Your task to perform on an android device: turn on location history Image 0: 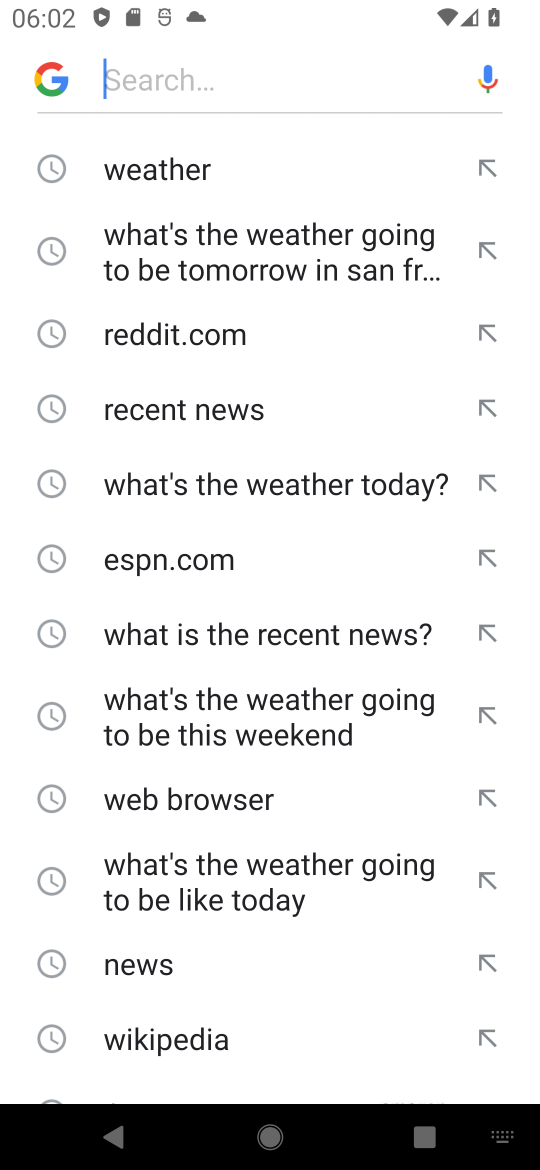
Step 0: press home button
Your task to perform on an android device: turn on location history Image 1: 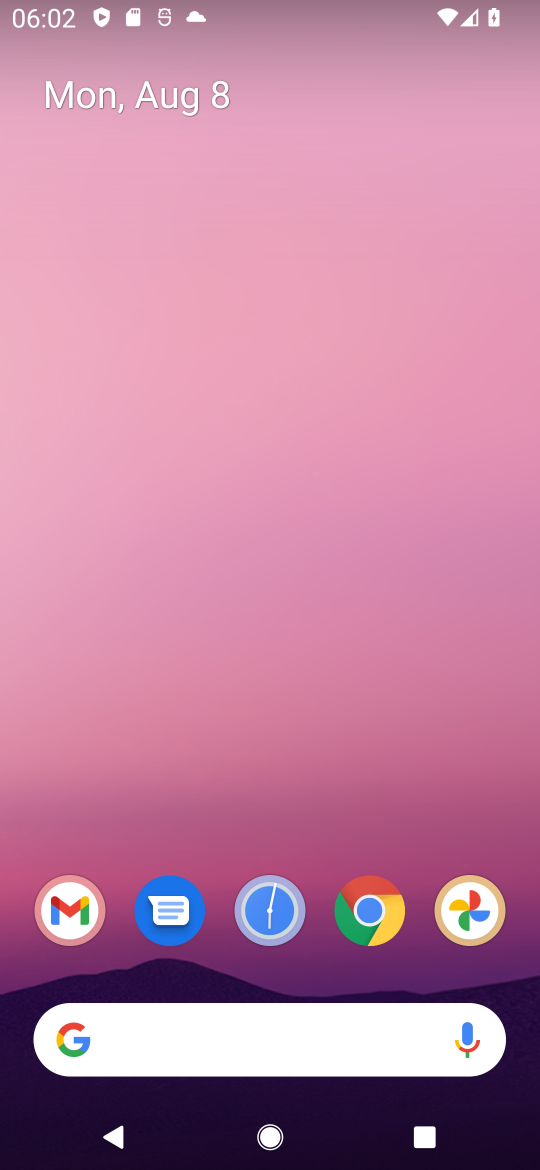
Step 1: drag from (164, 1038) to (357, 395)
Your task to perform on an android device: turn on location history Image 2: 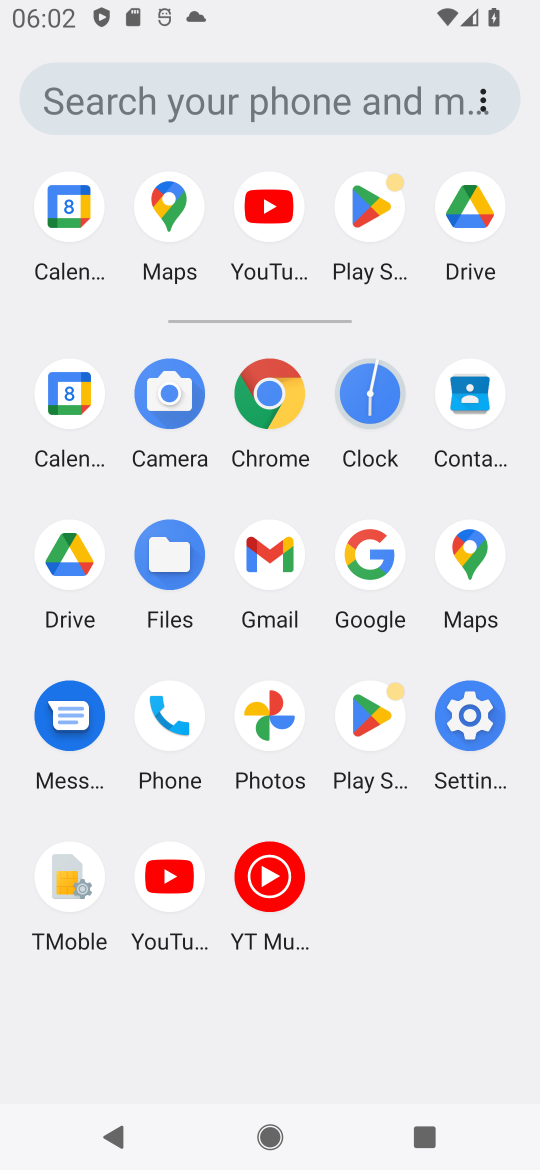
Step 2: click (468, 719)
Your task to perform on an android device: turn on location history Image 3: 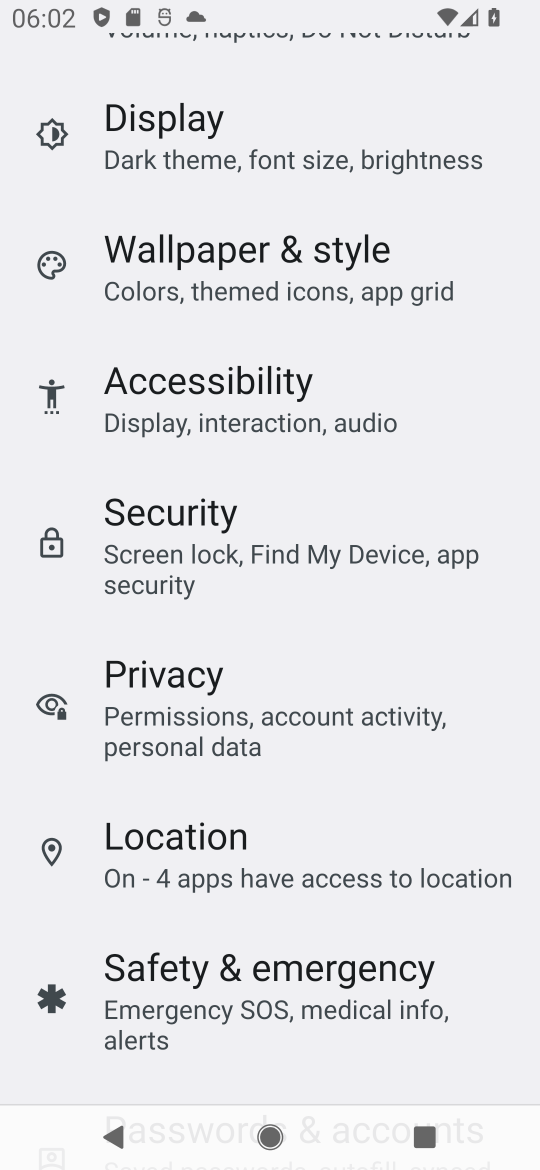
Step 3: click (231, 839)
Your task to perform on an android device: turn on location history Image 4: 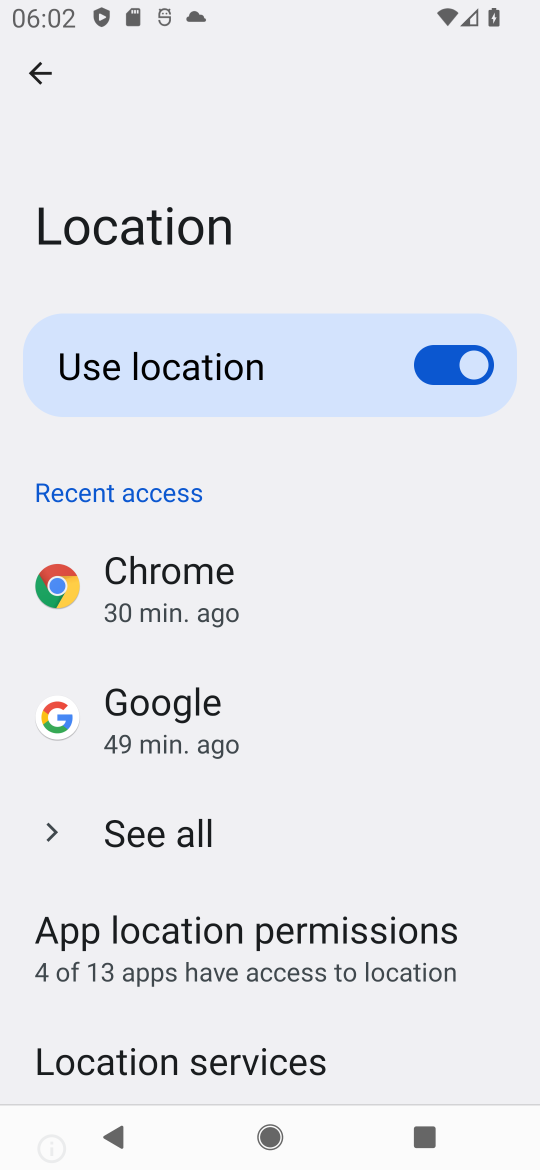
Step 4: drag from (170, 1002) to (329, 726)
Your task to perform on an android device: turn on location history Image 5: 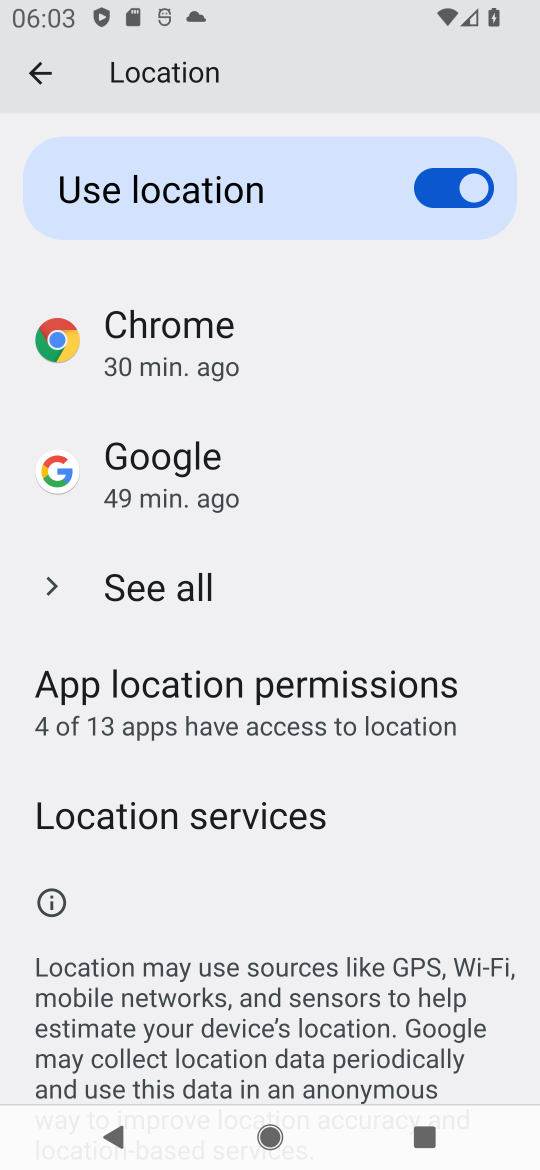
Step 5: click (268, 827)
Your task to perform on an android device: turn on location history Image 6: 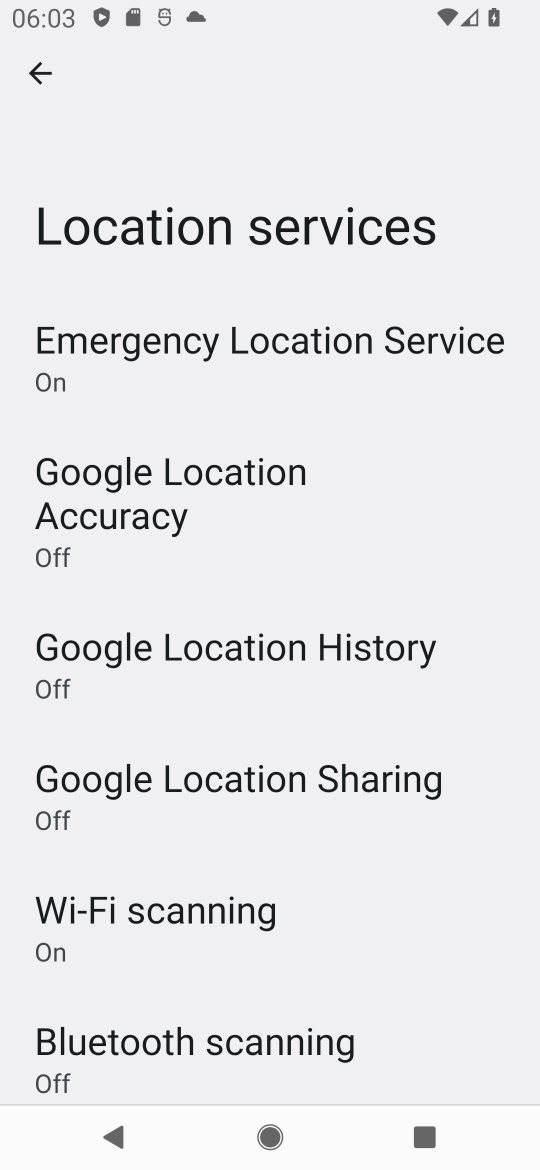
Step 6: click (185, 668)
Your task to perform on an android device: turn on location history Image 7: 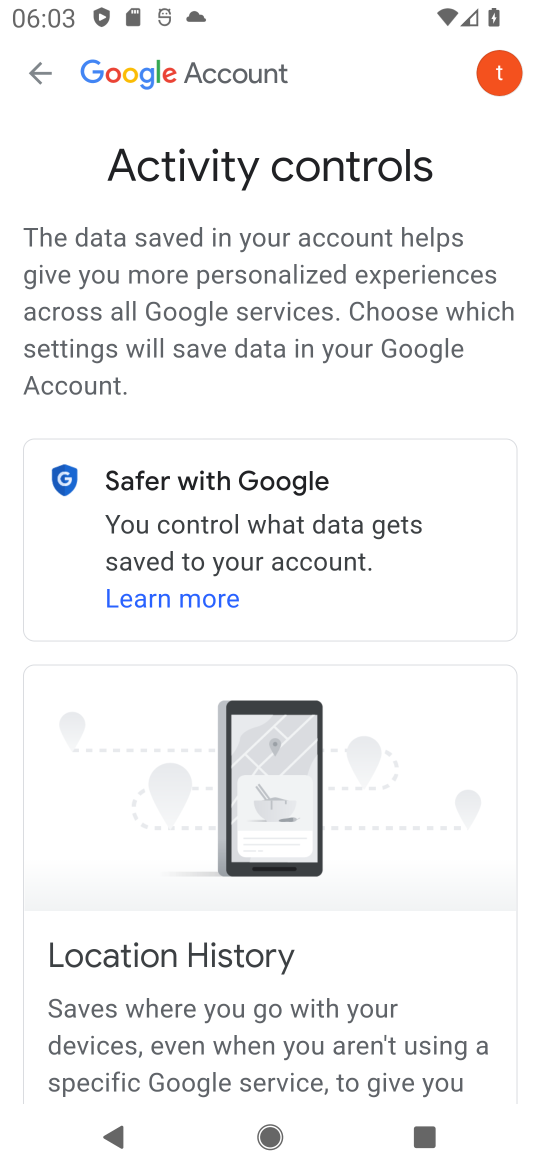
Step 7: drag from (234, 923) to (322, 691)
Your task to perform on an android device: turn on location history Image 8: 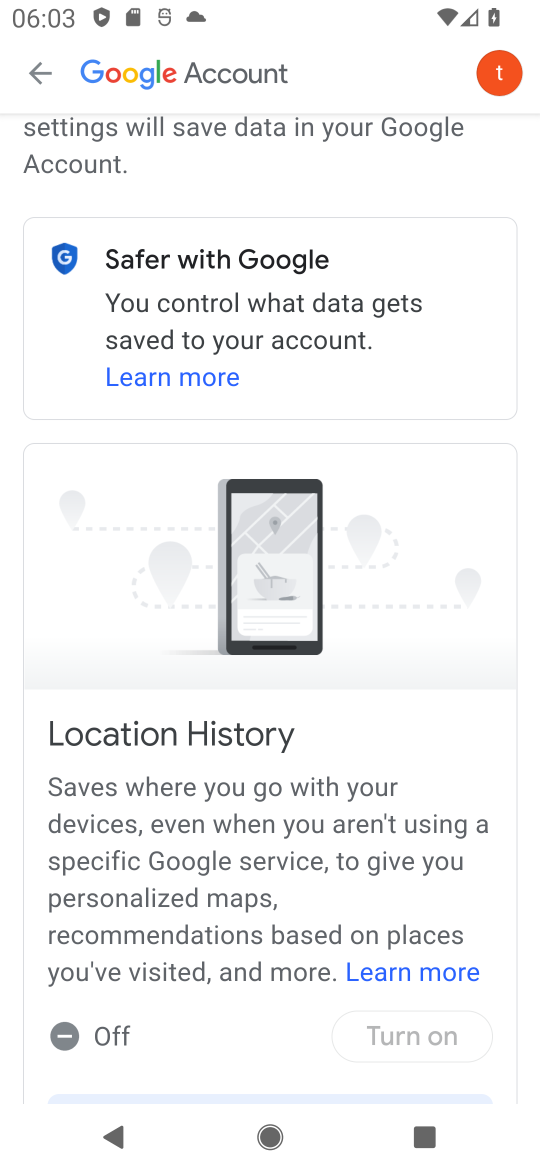
Step 8: drag from (252, 957) to (355, 717)
Your task to perform on an android device: turn on location history Image 9: 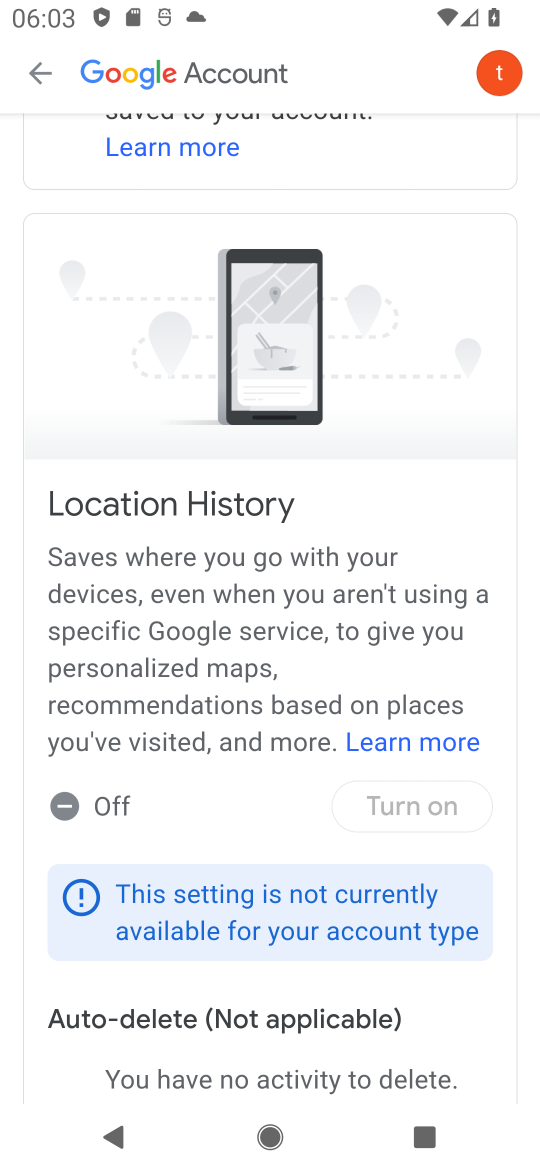
Step 9: drag from (259, 968) to (343, 814)
Your task to perform on an android device: turn on location history Image 10: 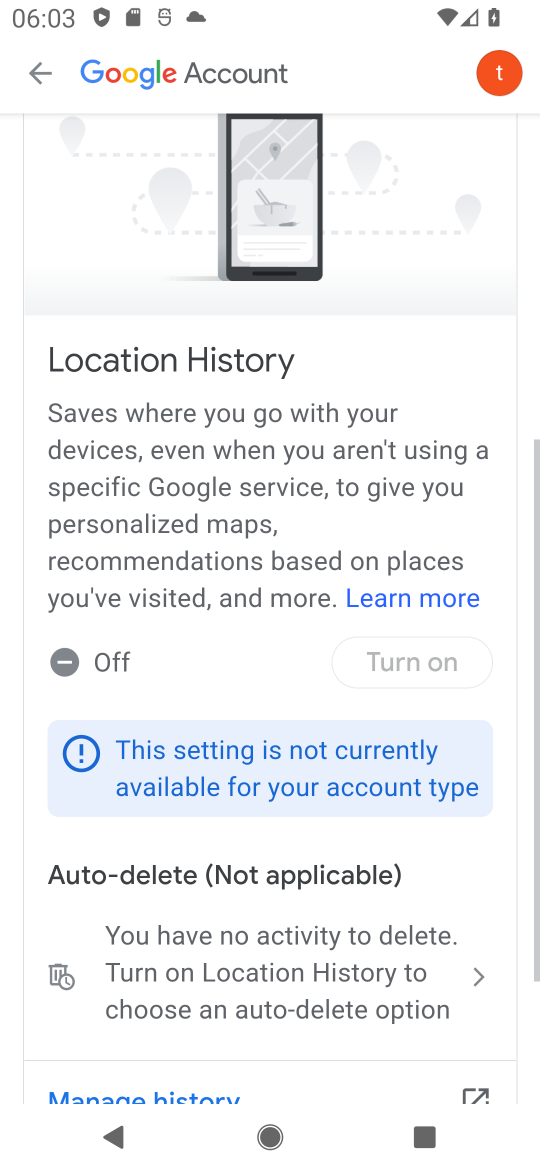
Step 10: drag from (299, 978) to (377, 788)
Your task to perform on an android device: turn on location history Image 11: 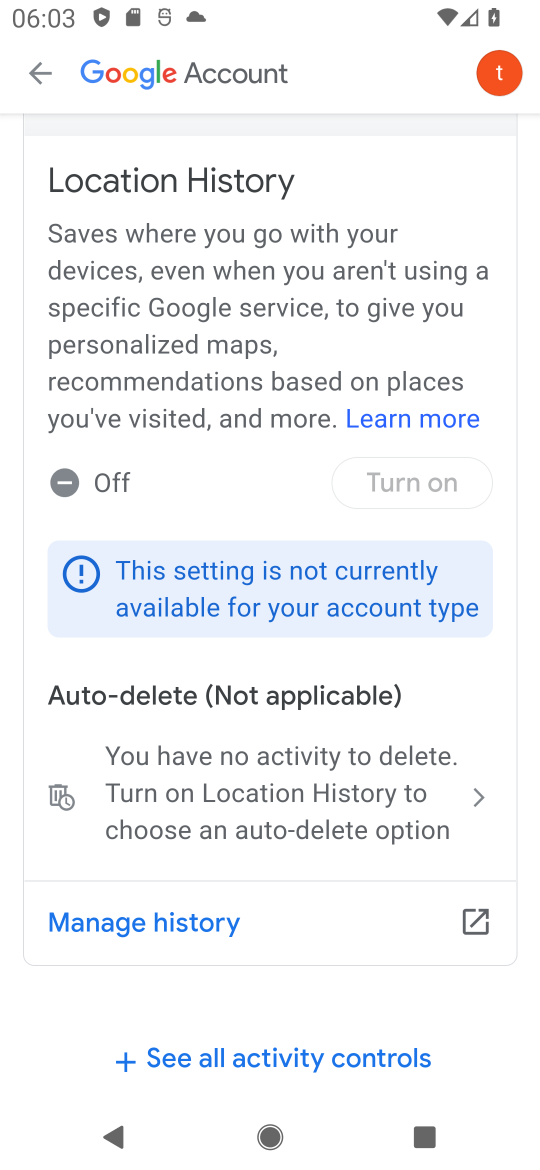
Step 11: drag from (334, 936) to (365, 824)
Your task to perform on an android device: turn on location history Image 12: 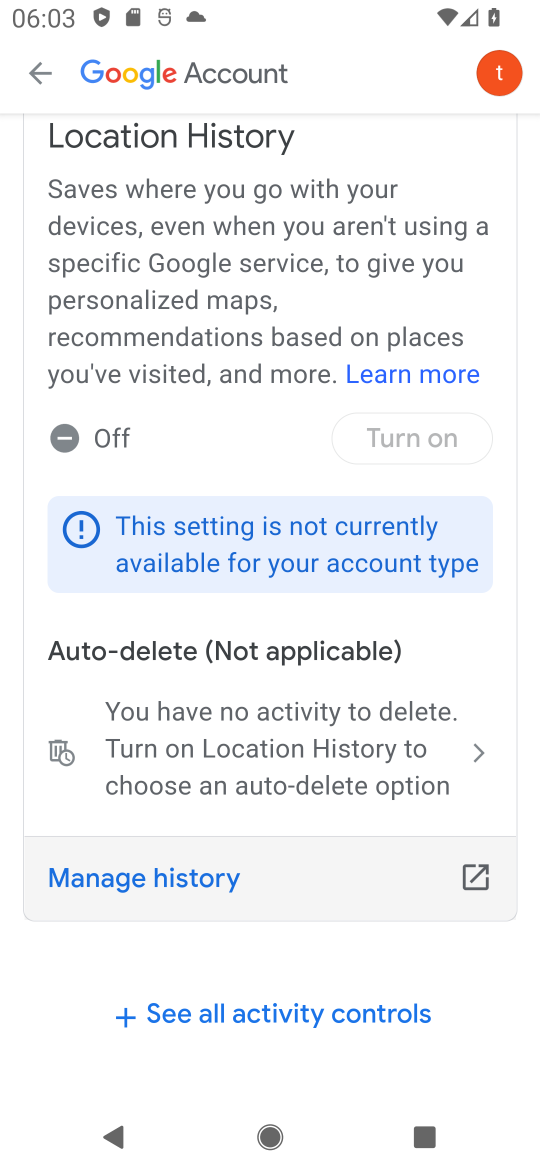
Step 12: click (307, 1019)
Your task to perform on an android device: turn on location history Image 13: 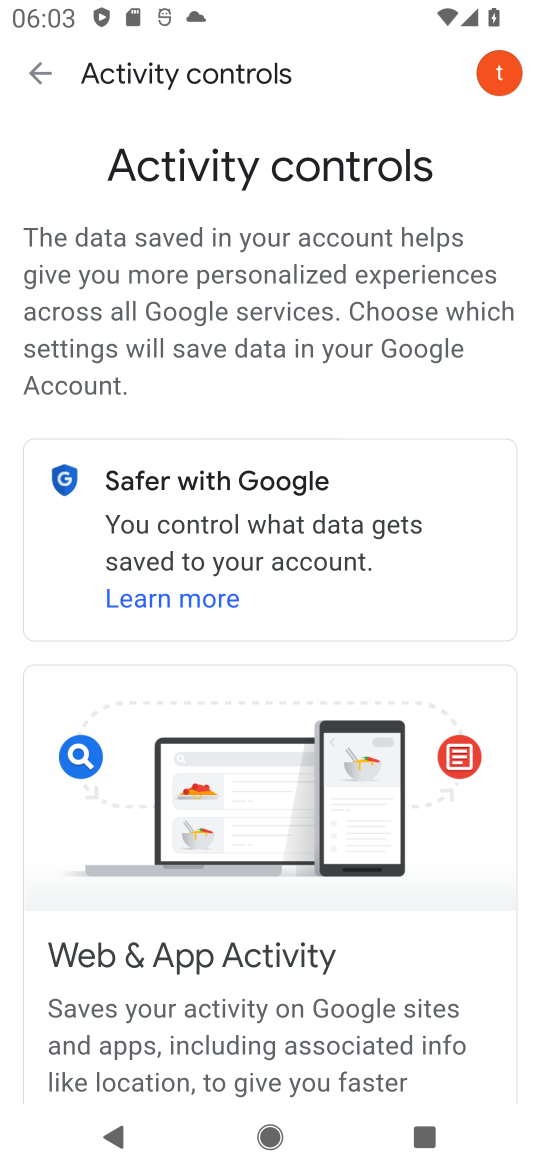
Step 13: task complete